Your task to perform on an android device: turn notification dots off Image 0: 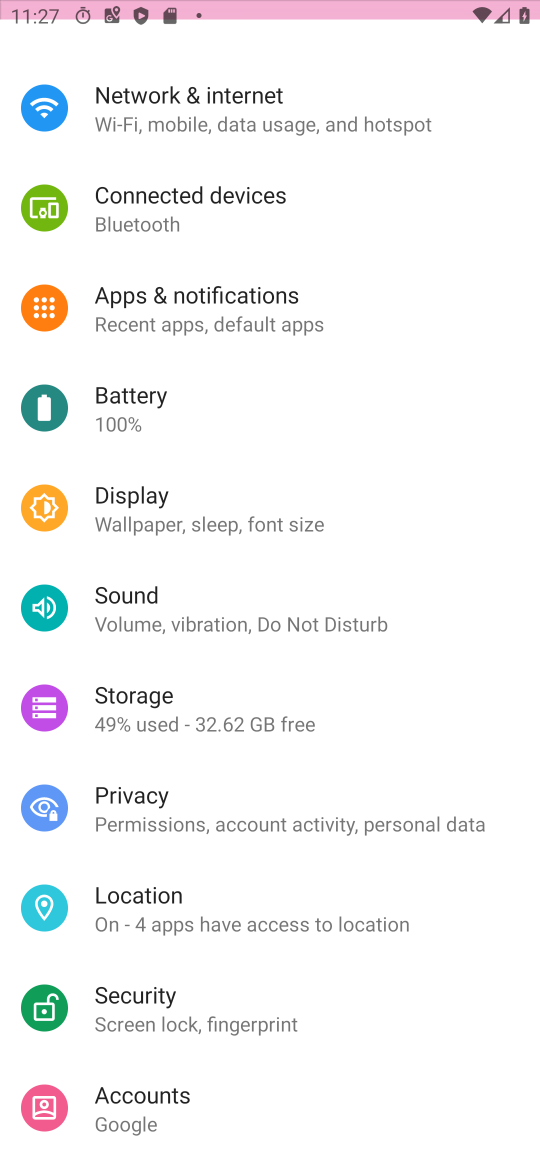
Step 0: click (34, 53)
Your task to perform on an android device: turn notification dots off Image 1: 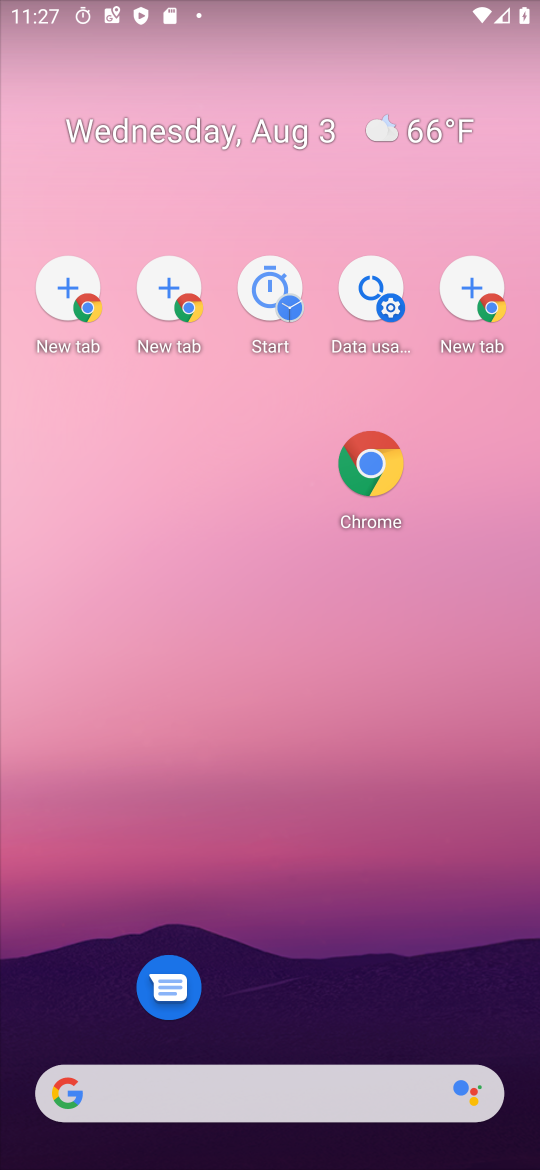
Step 1: press back button
Your task to perform on an android device: turn notification dots off Image 2: 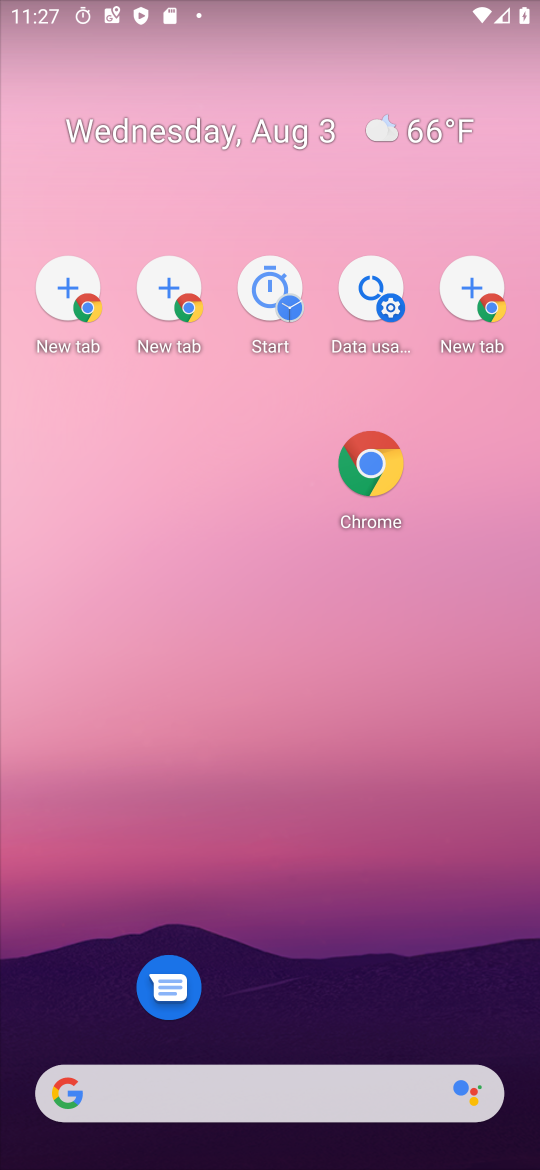
Step 2: drag from (310, 978) to (382, 54)
Your task to perform on an android device: turn notification dots off Image 3: 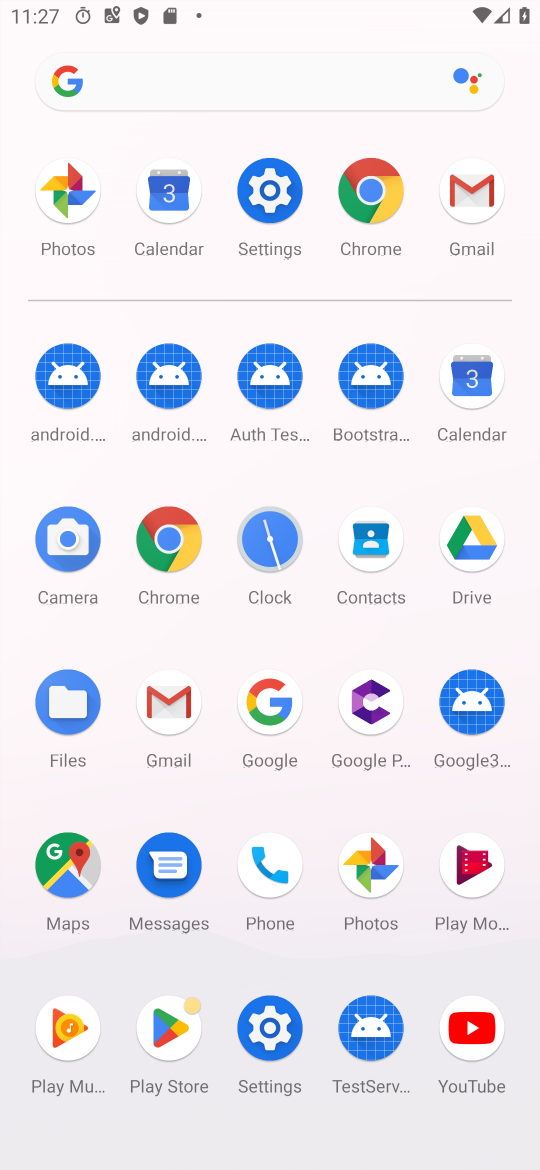
Step 3: click (289, 187)
Your task to perform on an android device: turn notification dots off Image 4: 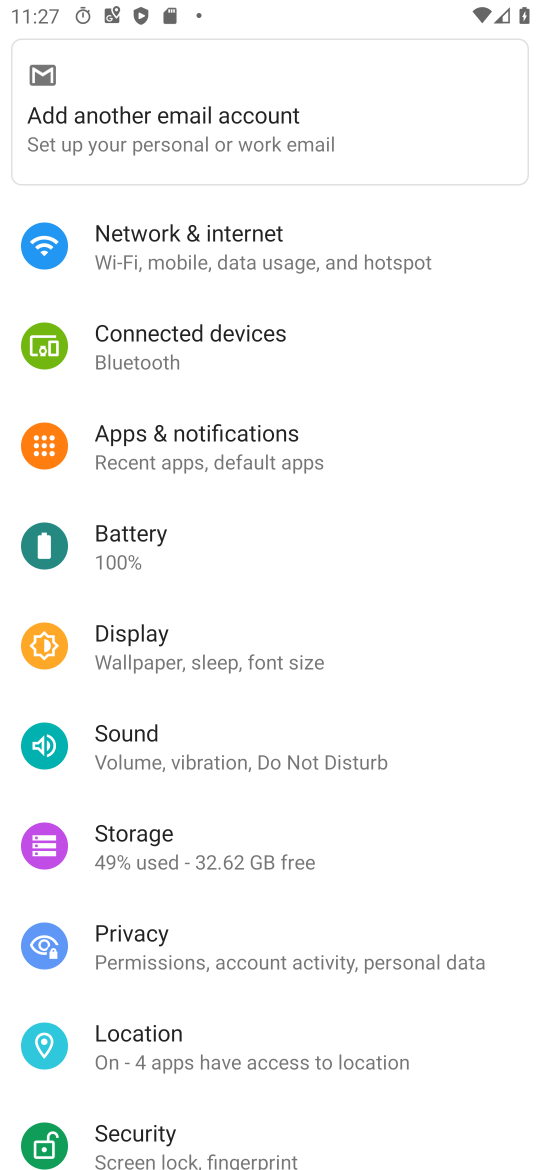
Step 4: click (172, 326)
Your task to perform on an android device: turn notification dots off Image 5: 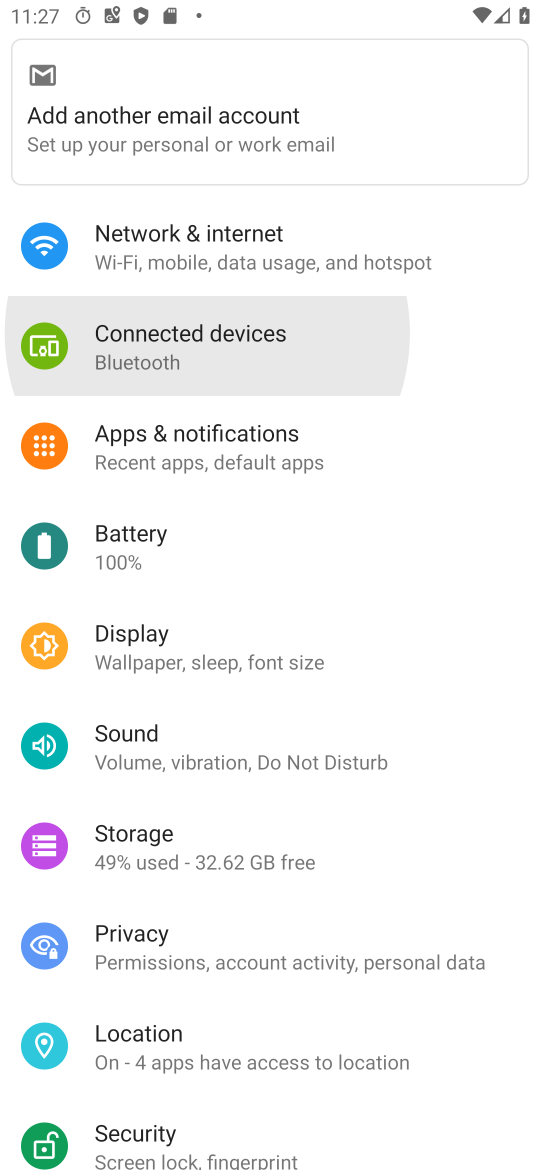
Step 5: click (175, 451)
Your task to perform on an android device: turn notification dots off Image 6: 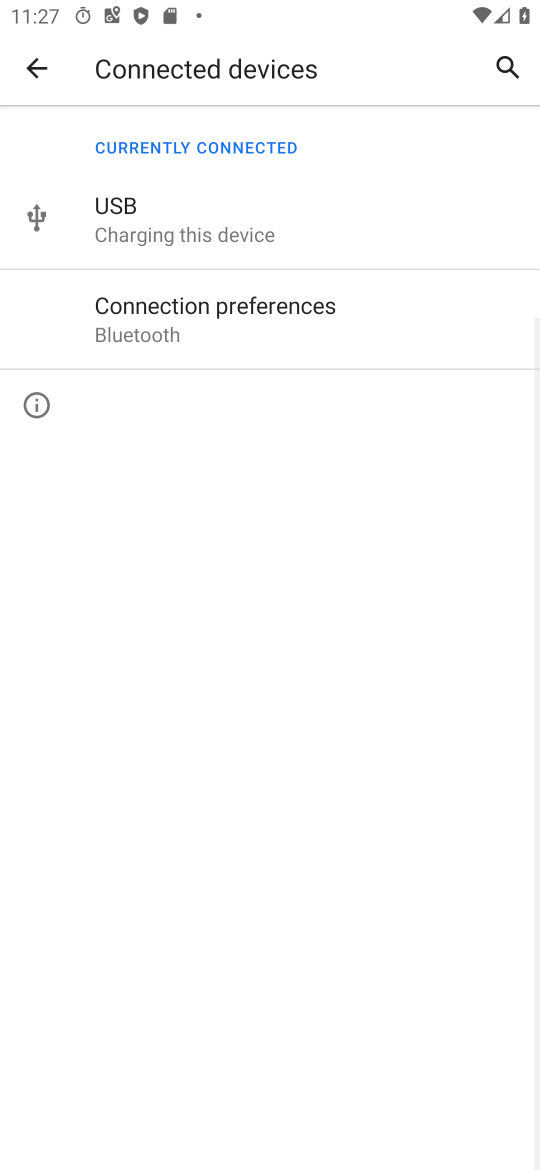
Step 6: click (24, 47)
Your task to perform on an android device: turn notification dots off Image 7: 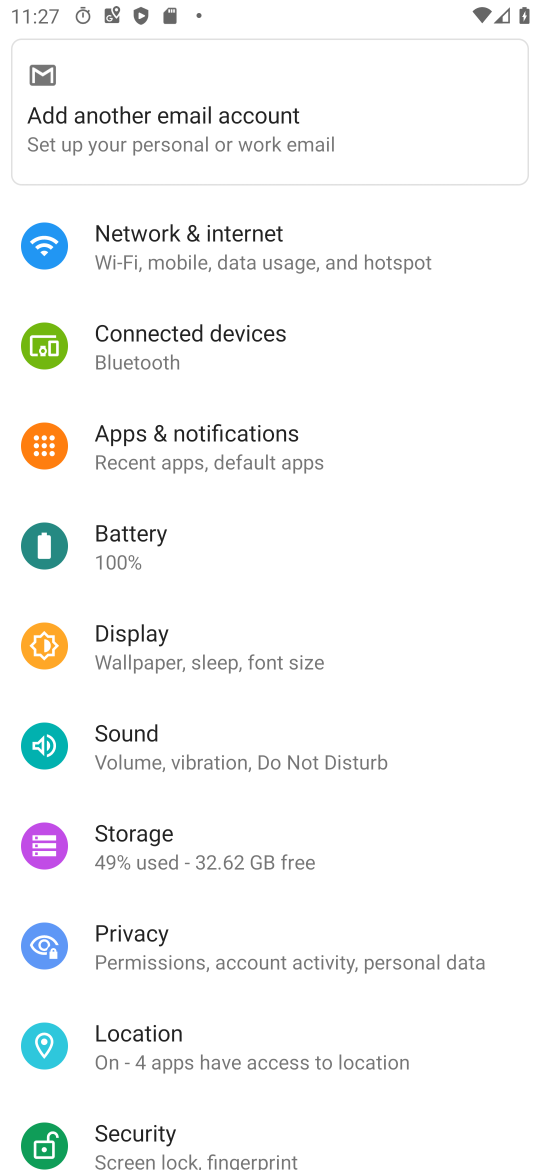
Step 7: click (196, 297)
Your task to perform on an android device: turn notification dots off Image 8: 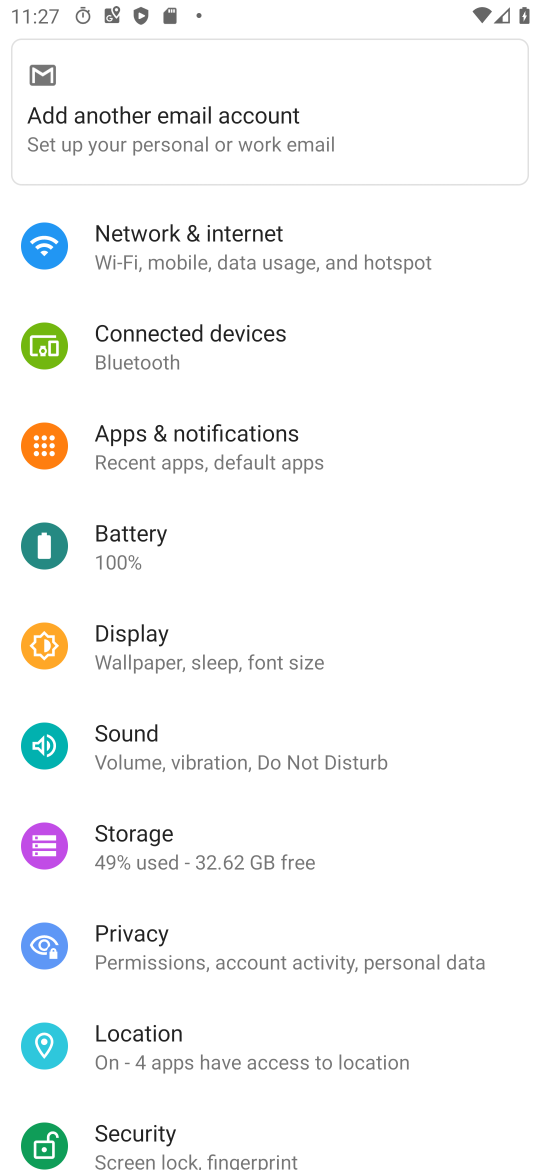
Step 8: click (201, 471)
Your task to perform on an android device: turn notification dots off Image 9: 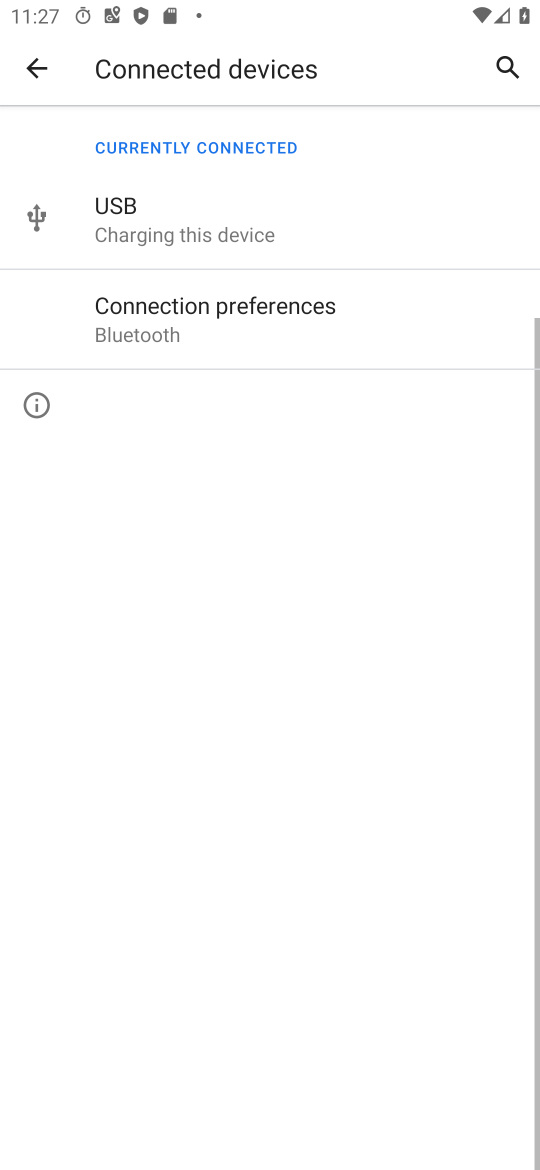
Step 9: click (38, 60)
Your task to perform on an android device: turn notification dots off Image 10: 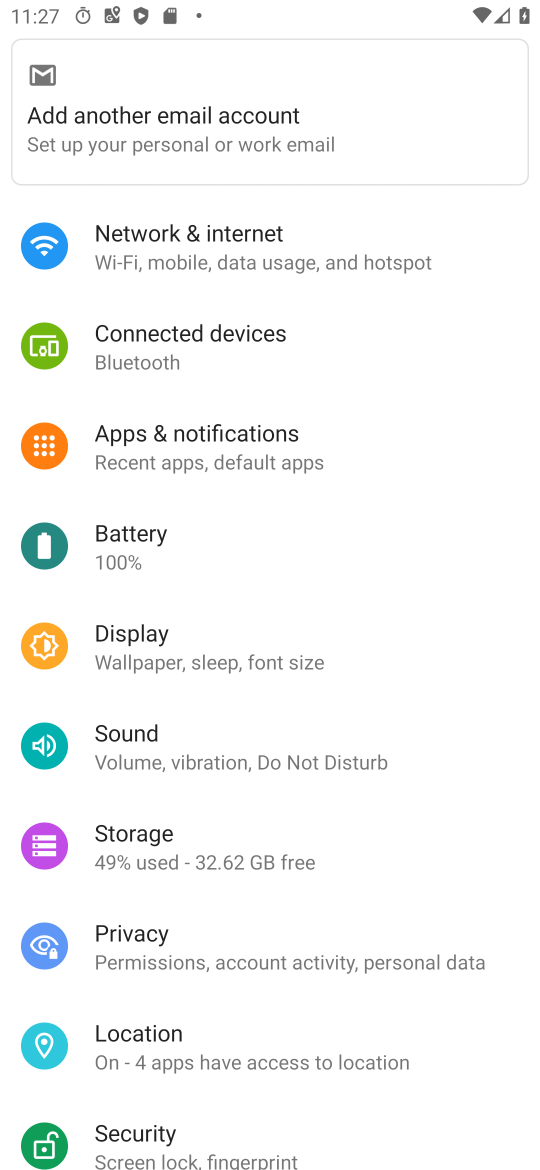
Step 10: click (197, 438)
Your task to perform on an android device: turn notification dots off Image 11: 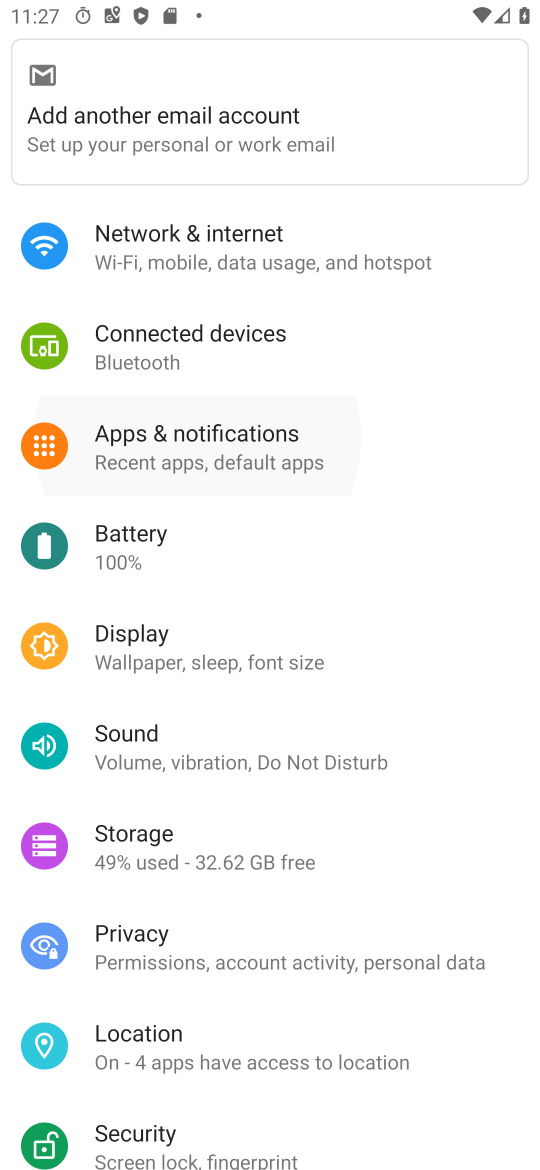
Step 11: click (197, 441)
Your task to perform on an android device: turn notification dots off Image 12: 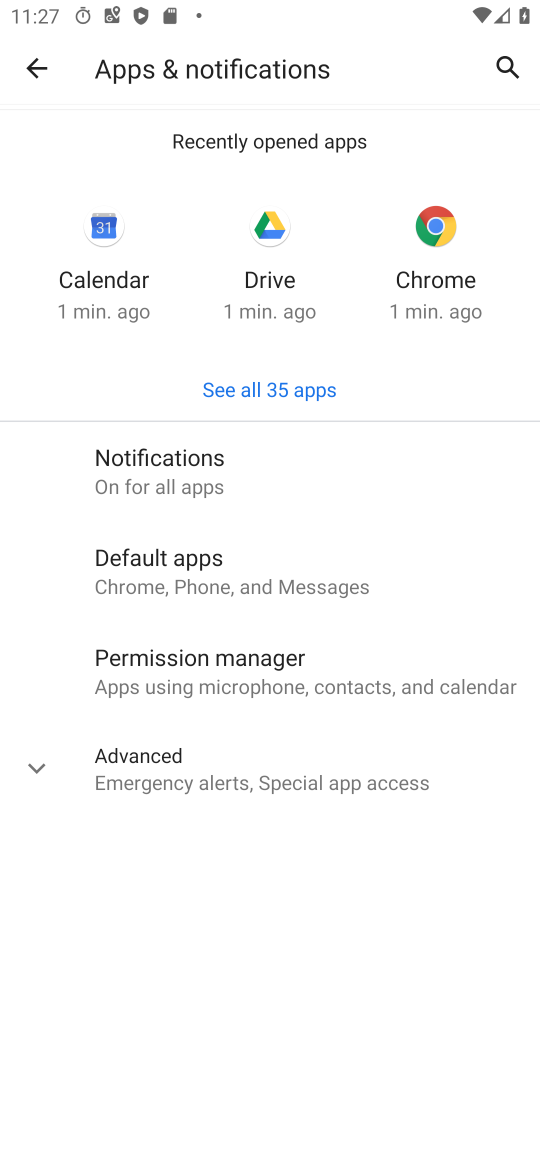
Step 12: click (158, 498)
Your task to perform on an android device: turn notification dots off Image 13: 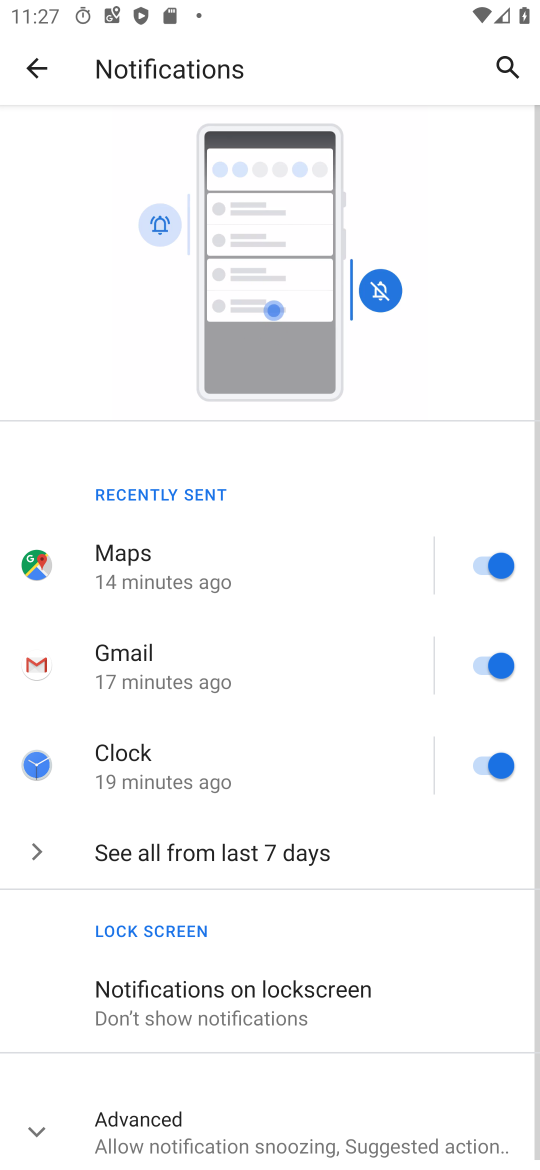
Step 13: drag from (272, 816) to (259, 287)
Your task to perform on an android device: turn notification dots off Image 14: 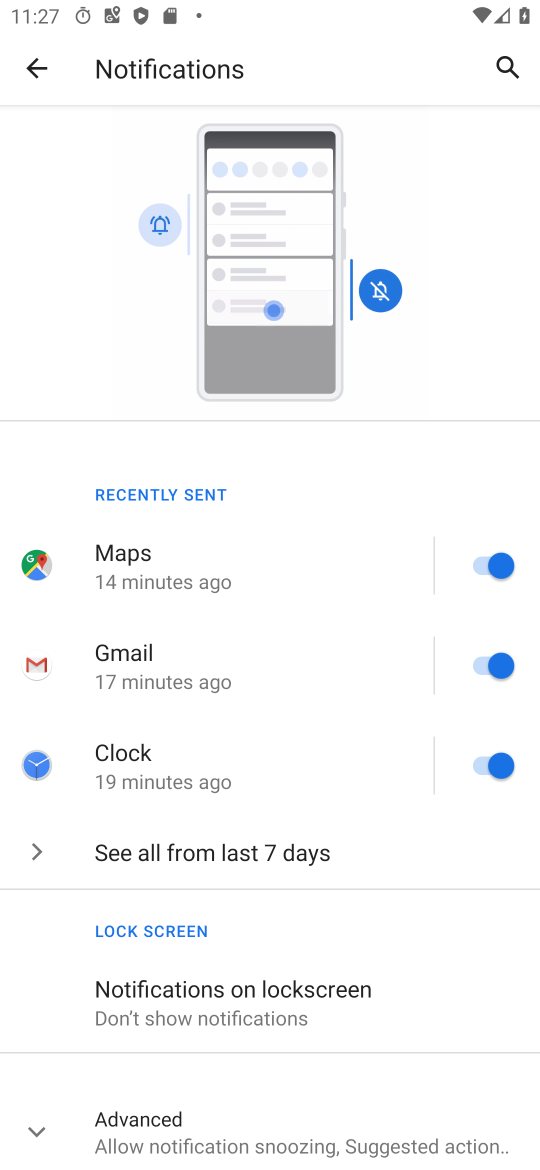
Step 14: drag from (283, 918) to (268, 420)
Your task to perform on an android device: turn notification dots off Image 15: 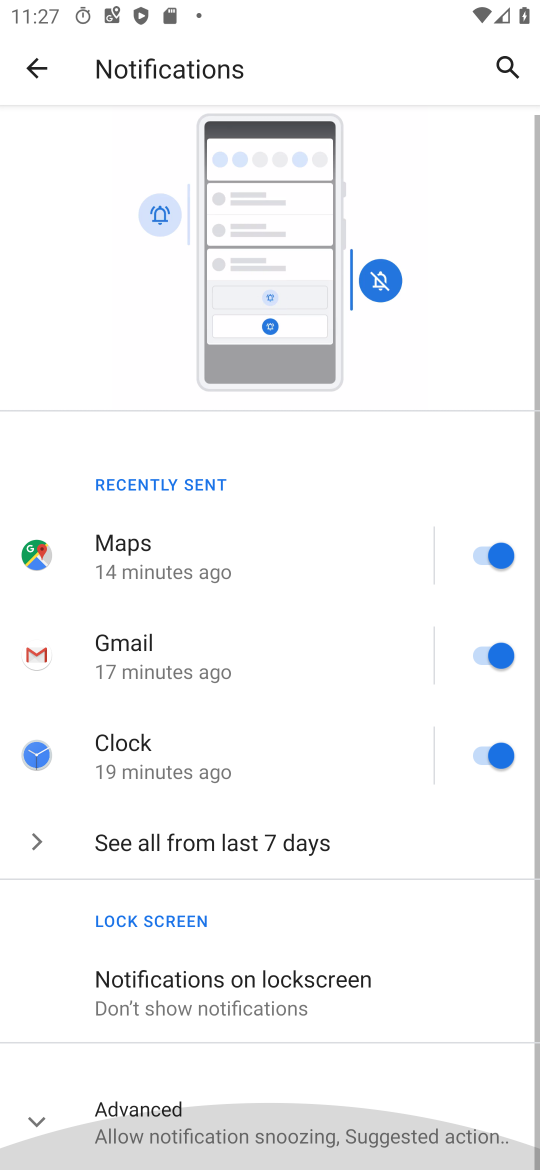
Step 15: click (228, 580)
Your task to perform on an android device: turn notification dots off Image 16: 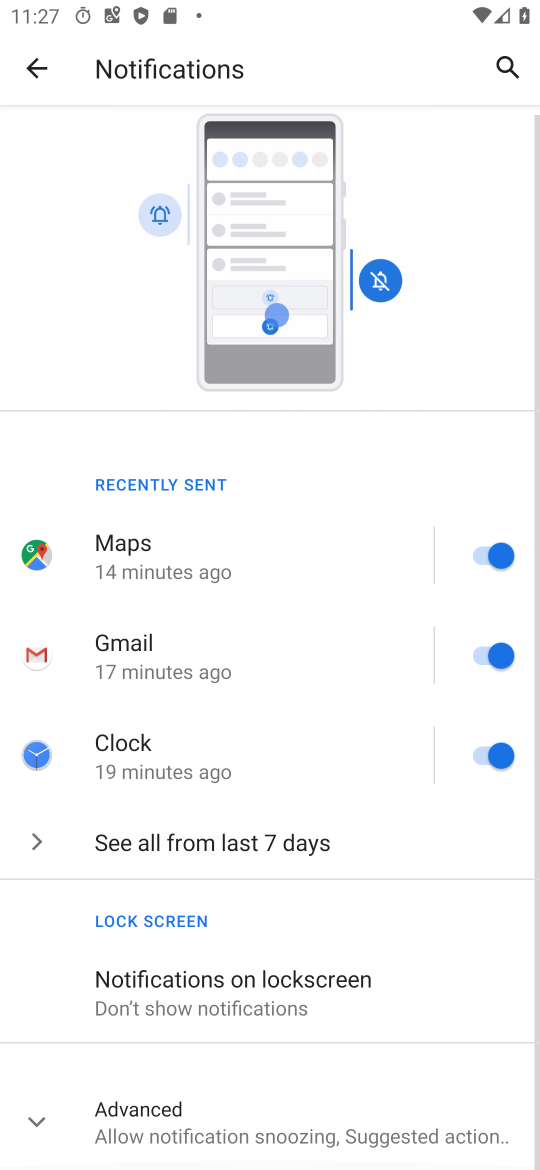
Step 16: drag from (389, 984) to (340, 689)
Your task to perform on an android device: turn notification dots off Image 17: 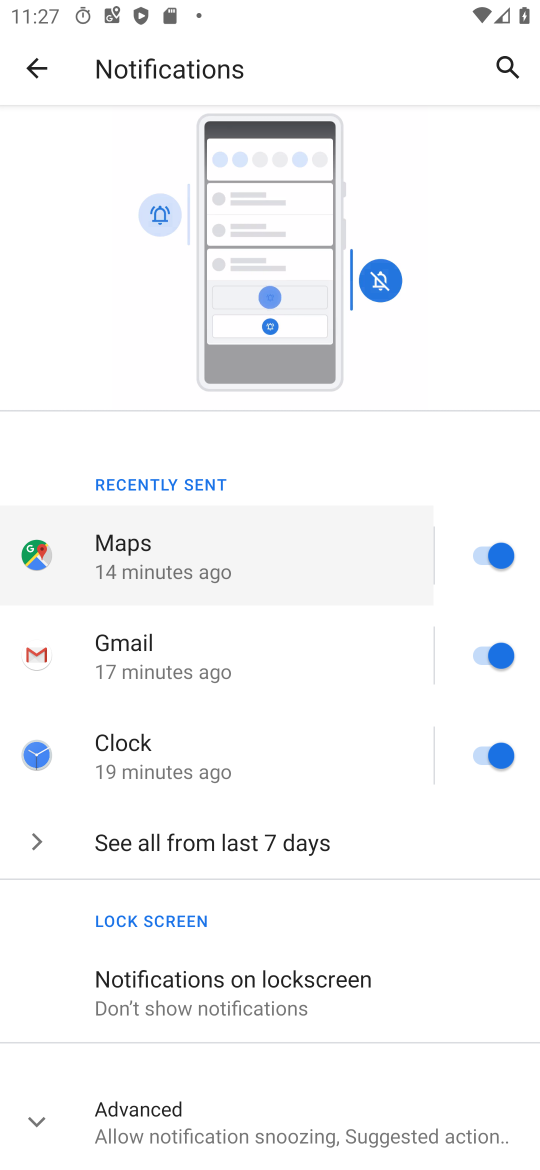
Step 17: drag from (290, 996) to (290, 529)
Your task to perform on an android device: turn notification dots off Image 18: 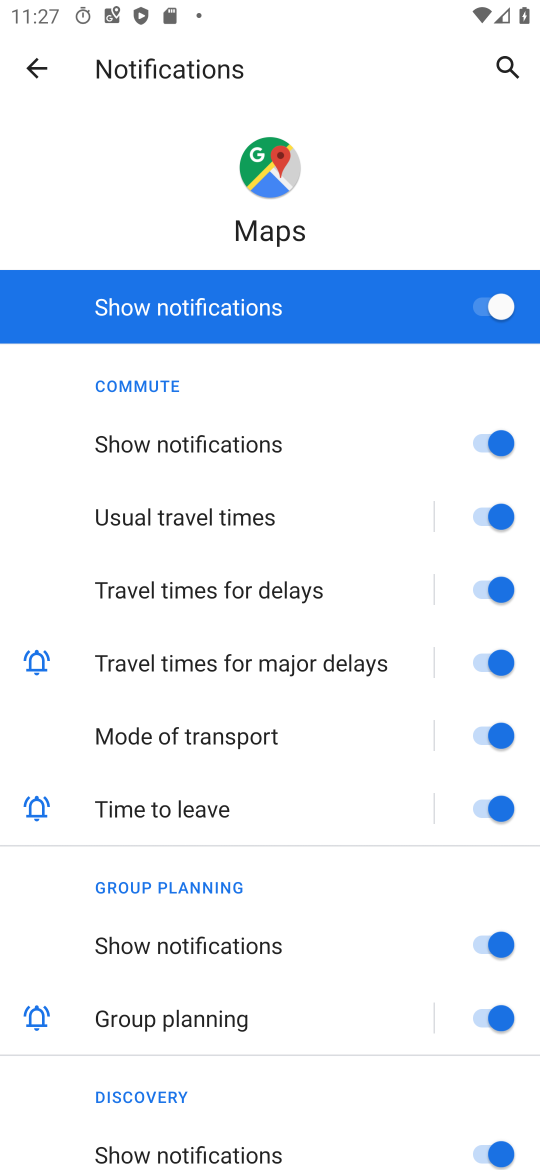
Step 18: click (27, 58)
Your task to perform on an android device: turn notification dots off Image 19: 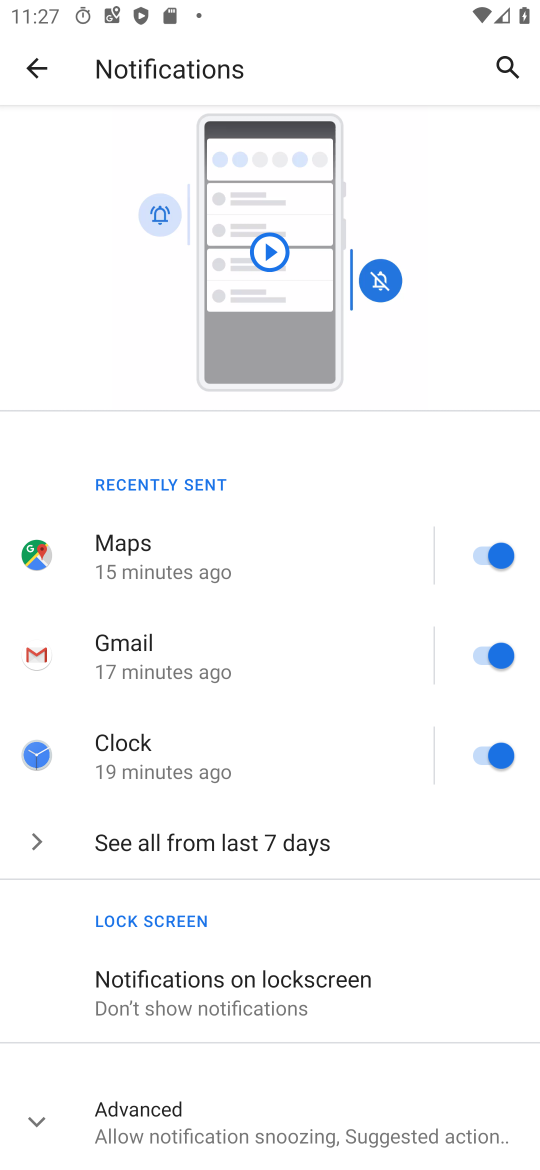
Step 19: drag from (244, 1050) to (244, 499)
Your task to perform on an android device: turn notification dots off Image 20: 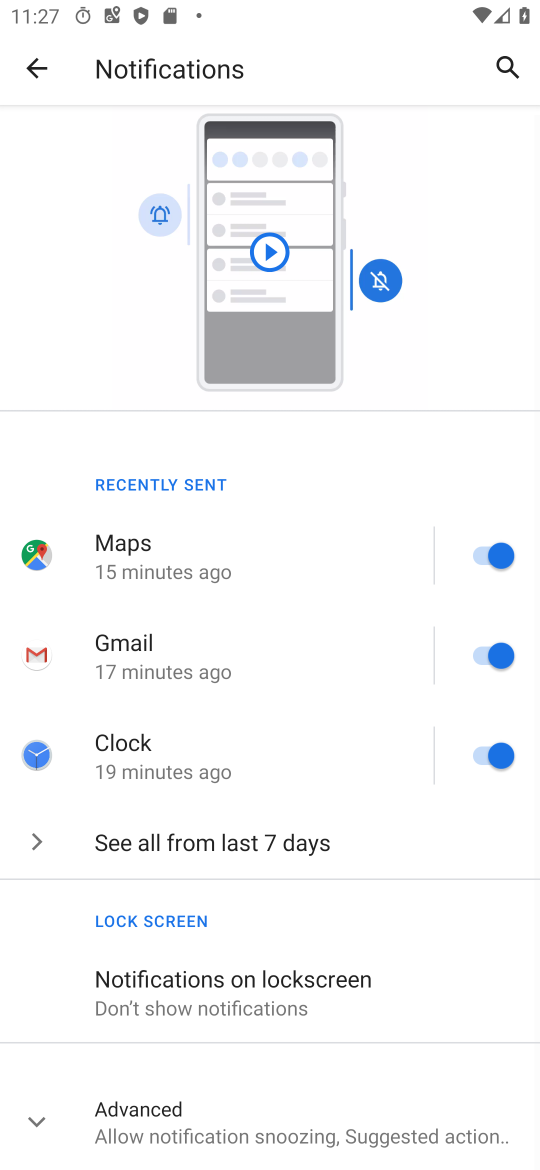
Step 20: click (159, 1118)
Your task to perform on an android device: turn notification dots off Image 21: 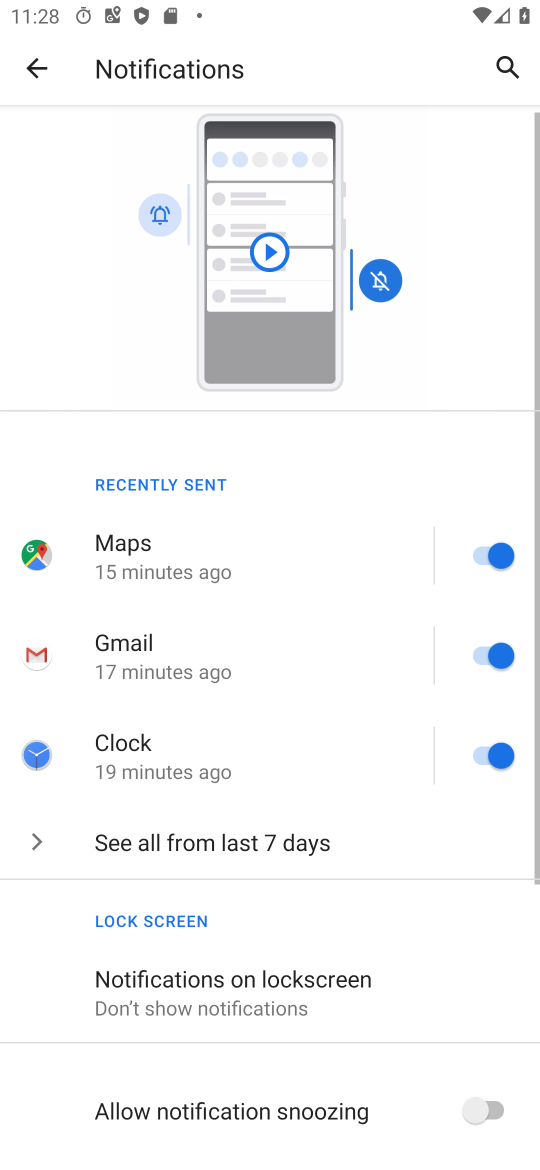
Step 21: drag from (279, 982) to (206, 483)
Your task to perform on an android device: turn notification dots off Image 22: 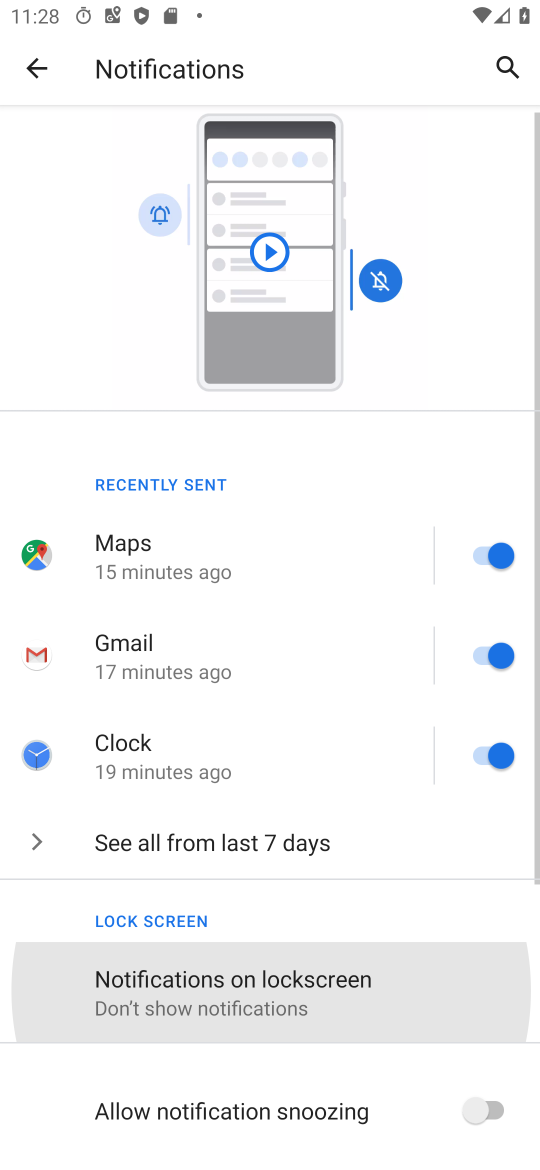
Step 22: drag from (206, 856) to (313, 391)
Your task to perform on an android device: turn notification dots off Image 23: 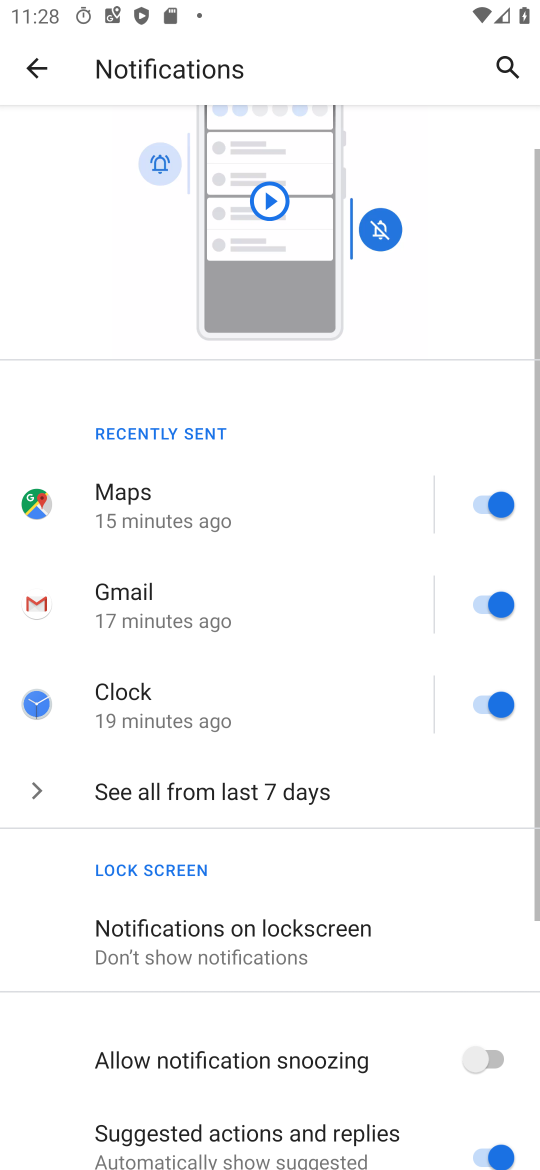
Step 23: drag from (294, 786) to (212, 395)
Your task to perform on an android device: turn notification dots off Image 24: 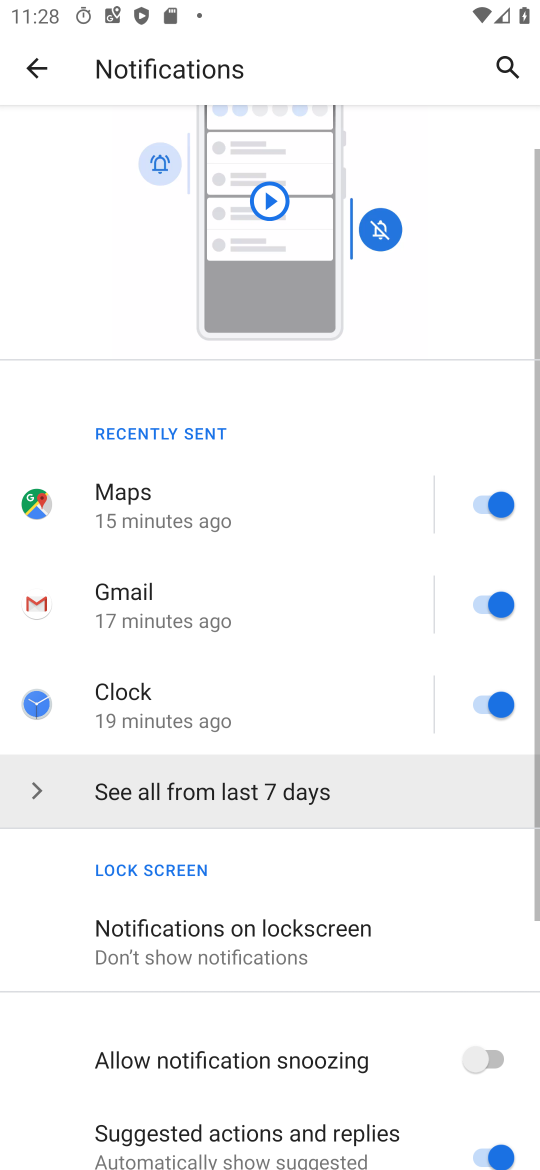
Step 24: drag from (334, 819) to (256, 326)
Your task to perform on an android device: turn notification dots off Image 25: 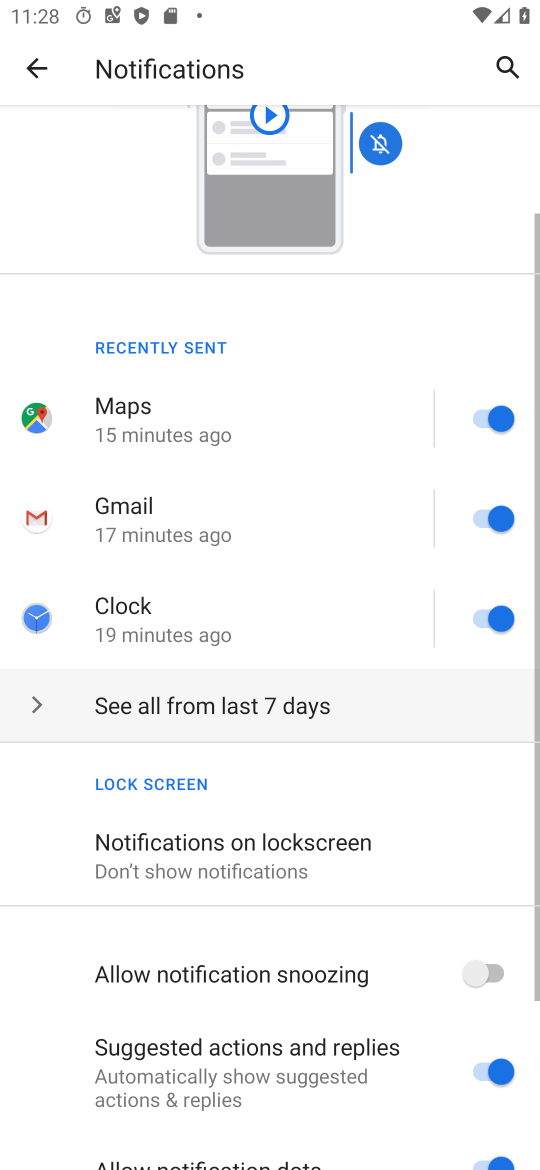
Step 25: drag from (401, 1031) to (298, 384)
Your task to perform on an android device: turn notification dots off Image 26: 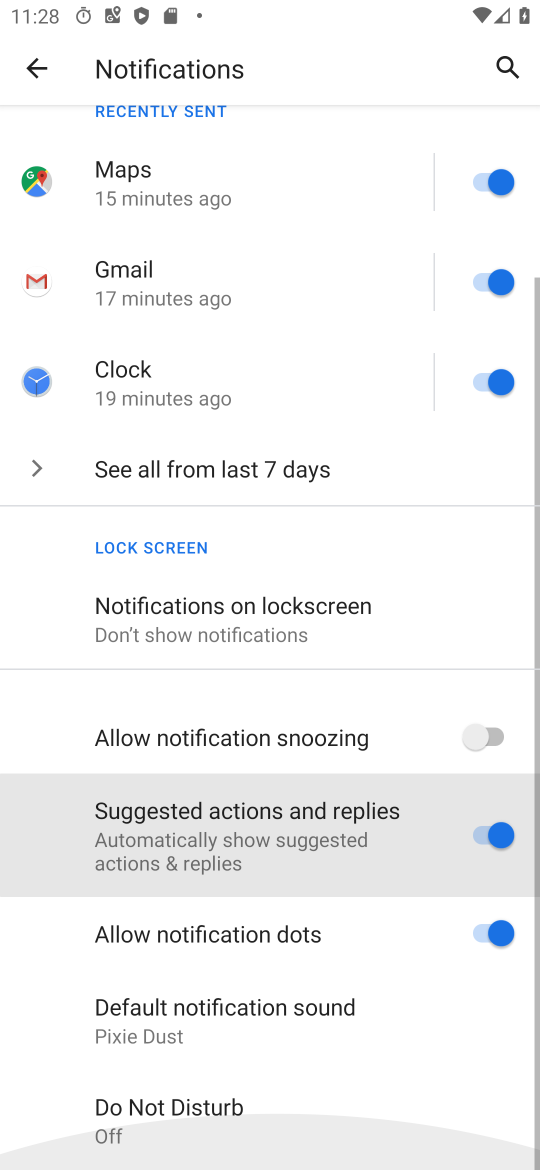
Step 26: drag from (342, 765) to (305, 440)
Your task to perform on an android device: turn notification dots off Image 27: 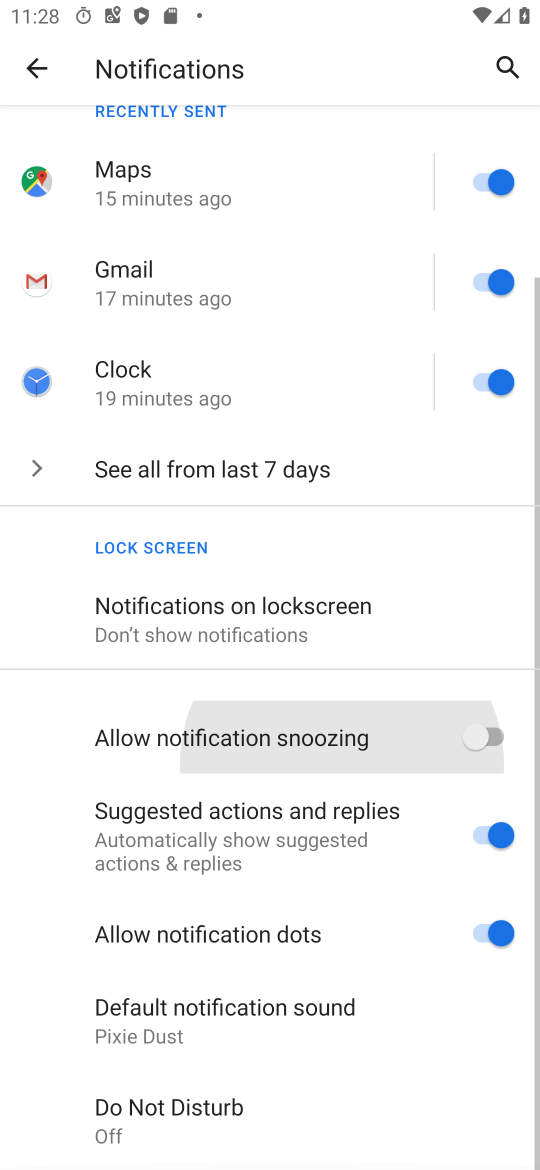
Step 27: drag from (313, 765) to (288, 568)
Your task to perform on an android device: turn notification dots off Image 28: 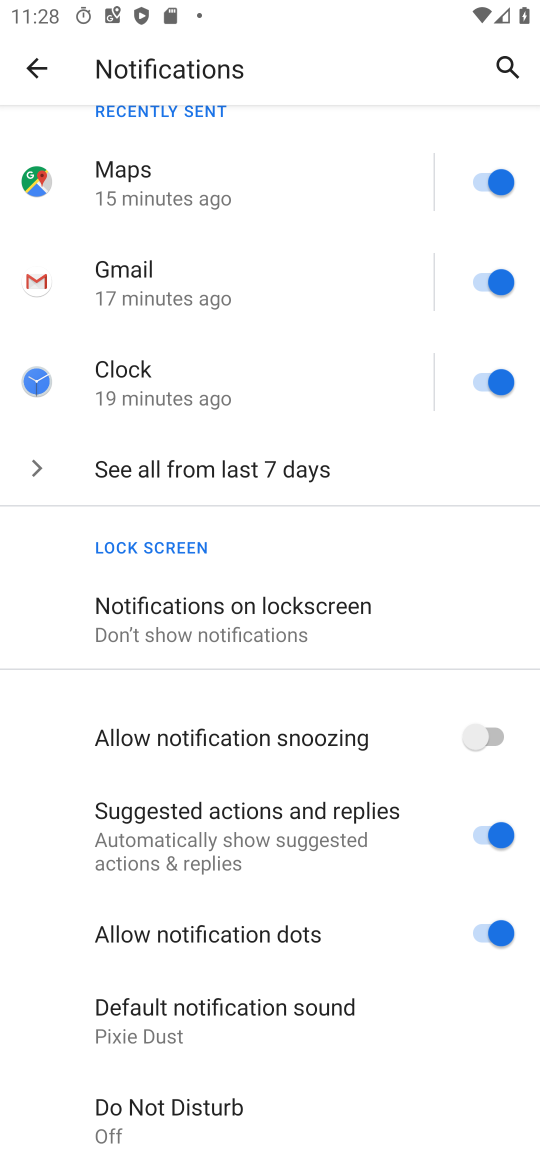
Step 28: click (490, 927)
Your task to perform on an android device: turn notification dots off Image 29: 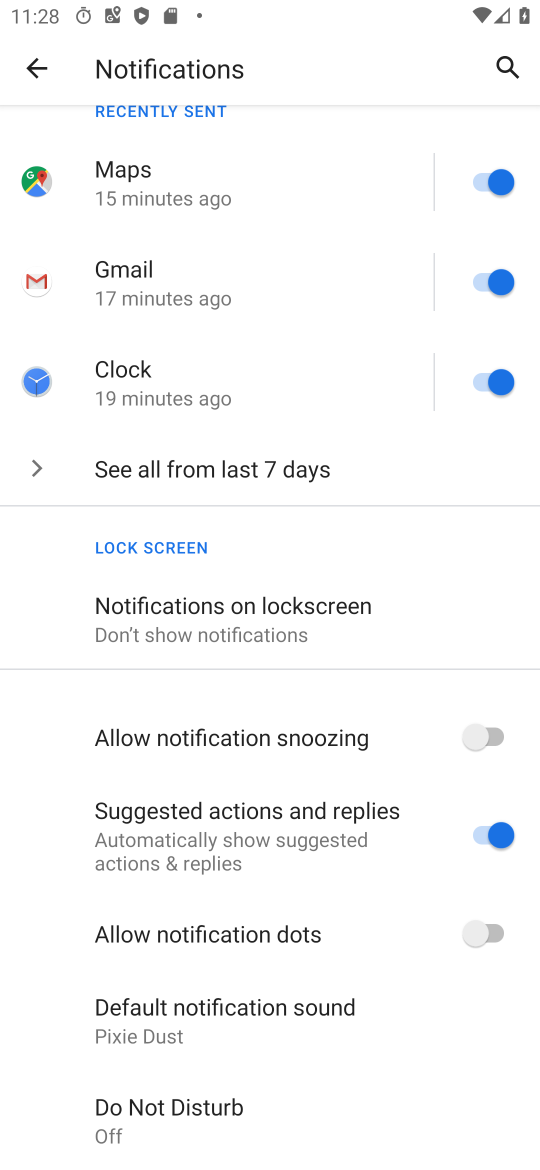
Step 29: task complete